Your task to perform on an android device: move an email to a new category in the gmail app Image 0: 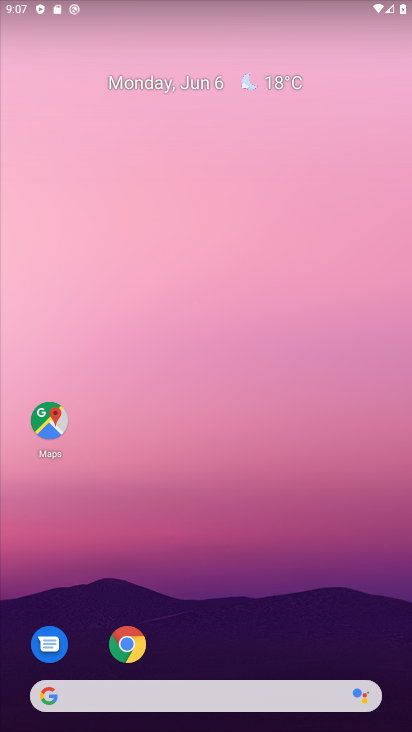
Step 0: drag from (282, 617) to (296, 103)
Your task to perform on an android device: move an email to a new category in the gmail app Image 1: 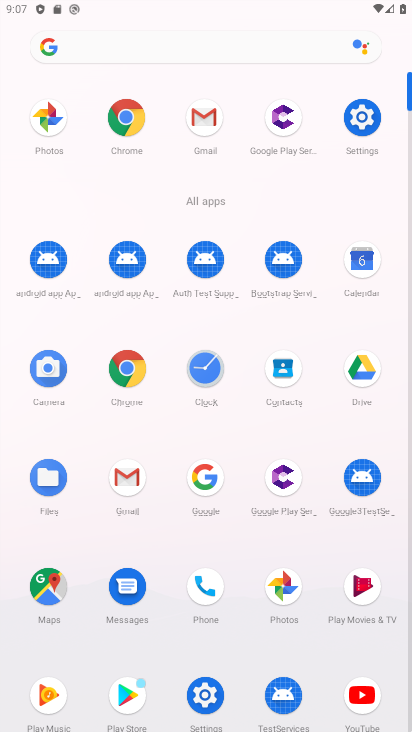
Step 1: click (143, 485)
Your task to perform on an android device: move an email to a new category in the gmail app Image 2: 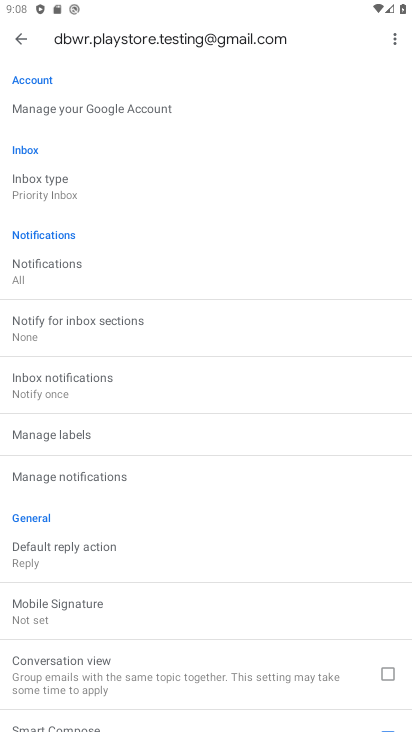
Step 2: drag from (217, 596) to (242, 258)
Your task to perform on an android device: move an email to a new category in the gmail app Image 3: 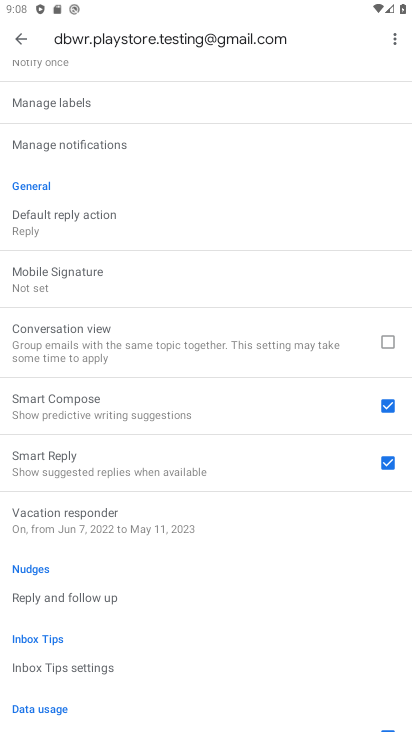
Step 3: click (10, 40)
Your task to perform on an android device: move an email to a new category in the gmail app Image 4: 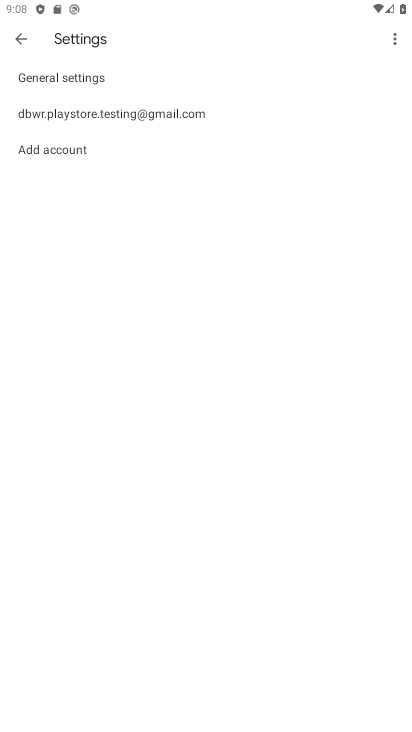
Step 4: click (10, 40)
Your task to perform on an android device: move an email to a new category in the gmail app Image 5: 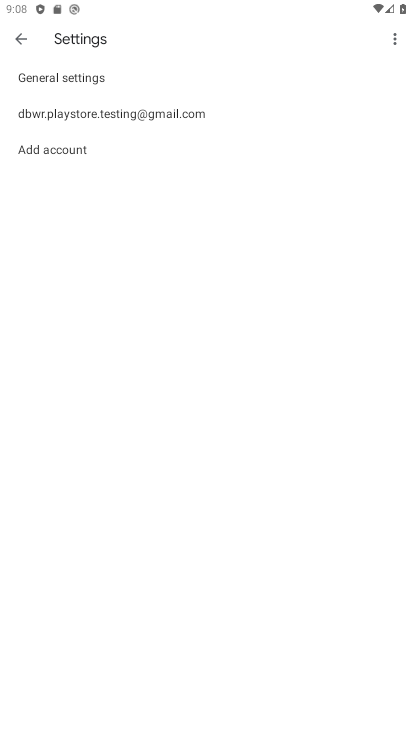
Step 5: click (25, 37)
Your task to perform on an android device: move an email to a new category in the gmail app Image 6: 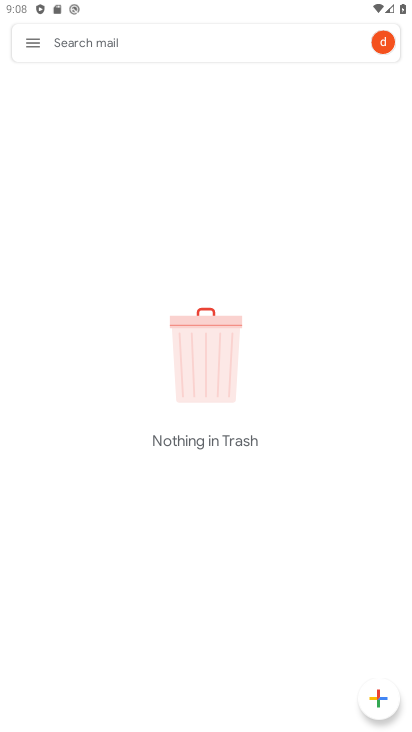
Step 6: click (35, 42)
Your task to perform on an android device: move an email to a new category in the gmail app Image 7: 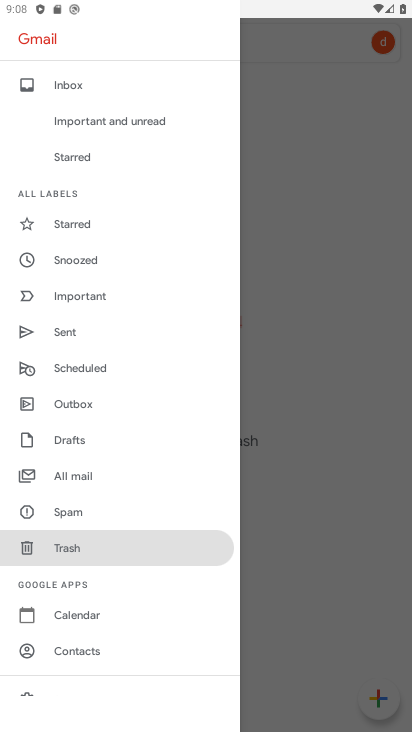
Step 7: click (159, 484)
Your task to perform on an android device: move an email to a new category in the gmail app Image 8: 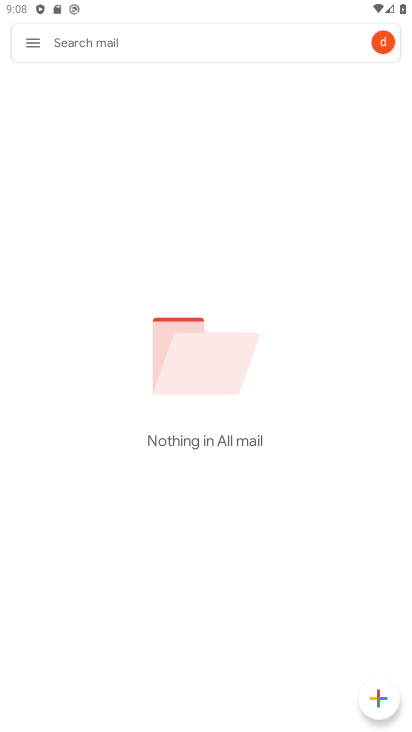
Step 8: task complete